Your task to perform on an android device: turn off notifications settings in the gmail app Image 0: 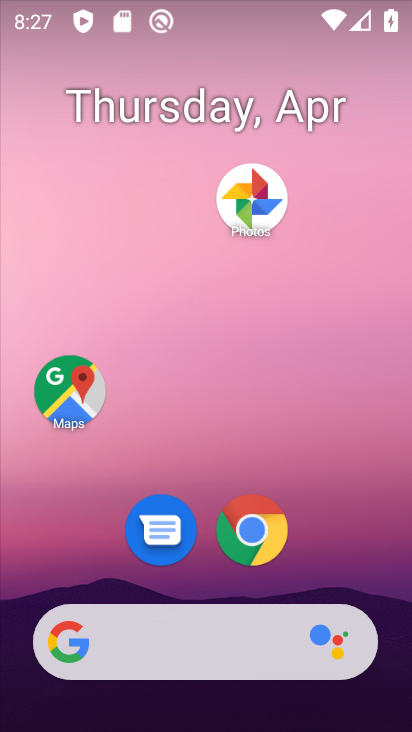
Step 0: drag from (363, 554) to (153, 50)
Your task to perform on an android device: turn off notifications settings in the gmail app Image 1: 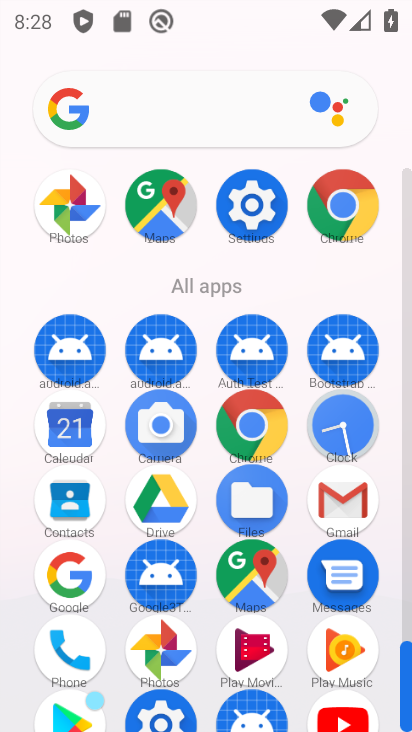
Step 1: click (343, 507)
Your task to perform on an android device: turn off notifications settings in the gmail app Image 2: 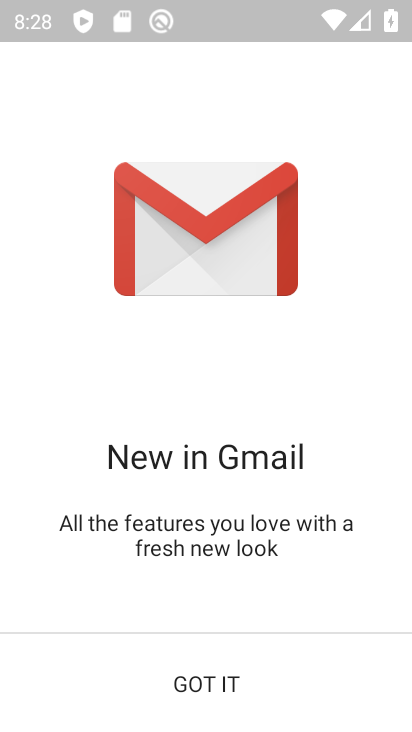
Step 2: click (241, 681)
Your task to perform on an android device: turn off notifications settings in the gmail app Image 3: 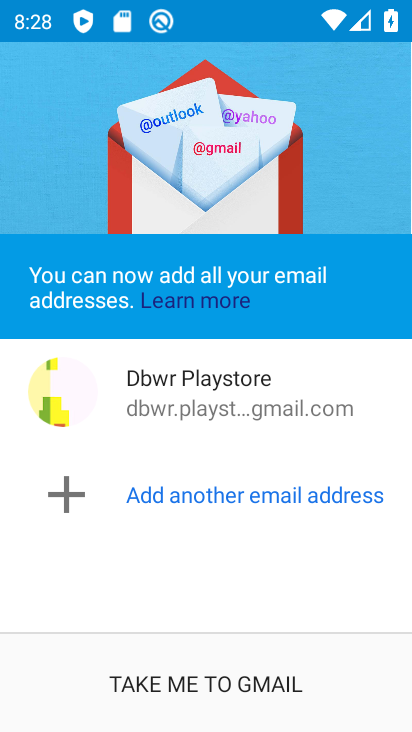
Step 3: click (219, 678)
Your task to perform on an android device: turn off notifications settings in the gmail app Image 4: 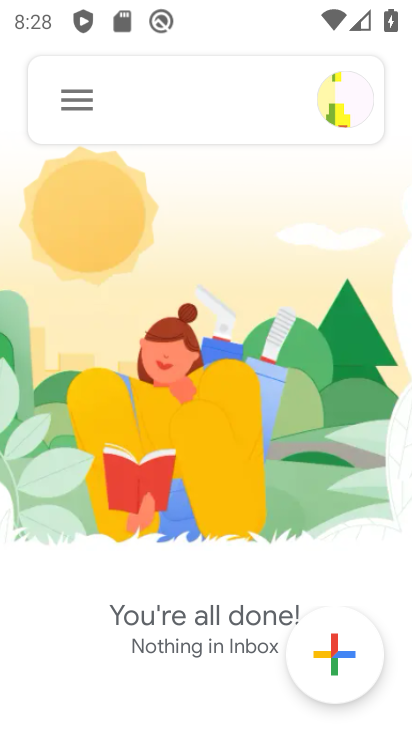
Step 4: click (77, 99)
Your task to perform on an android device: turn off notifications settings in the gmail app Image 5: 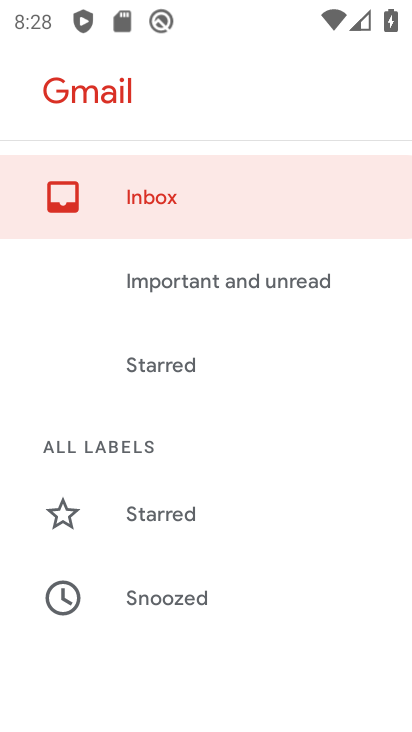
Step 5: drag from (182, 499) to (235, 98)
Your task to perform on an android device: turn off notifications settings in the gmail app Image 6: 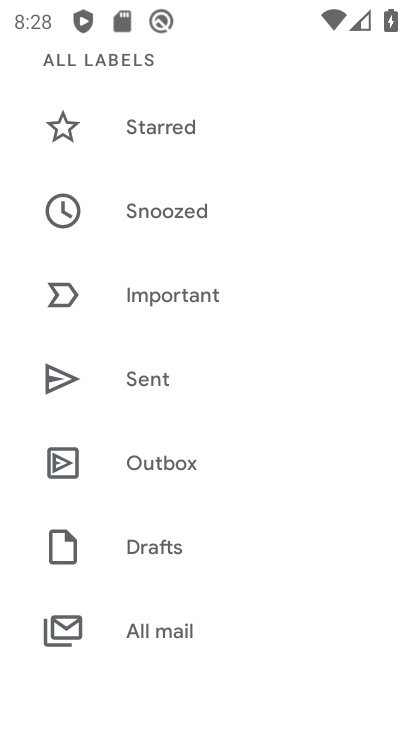
Step 6: drag from (217, 530) to (221, 172)
Your task to perform on an android device: turn off notifications settings in the gmail app Image 7: 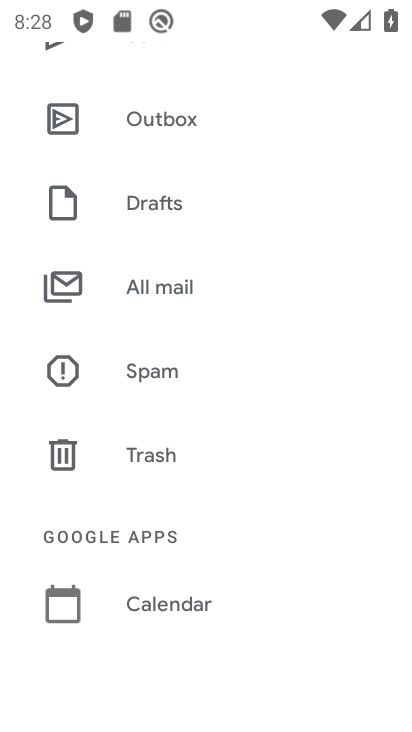
Step 7: drag from (154, 595) to (183, 184)
Your task to perform on an android device: turn off notifications settings in the gmail app Image 8: 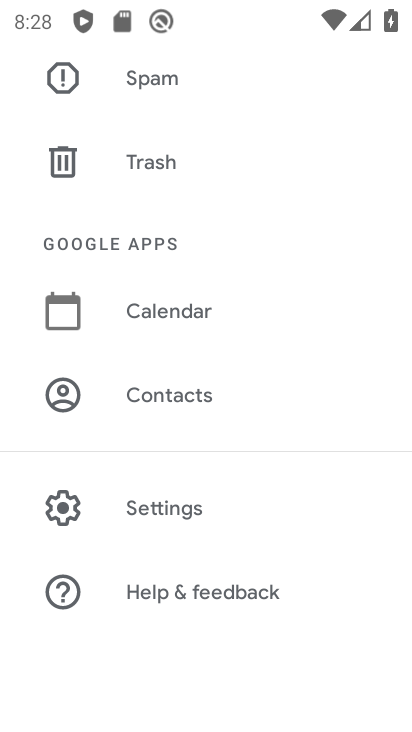
Step 8: click (170, 513)
Your task to perform on an android device: turn off notifications settings in the gmail app Image 9: 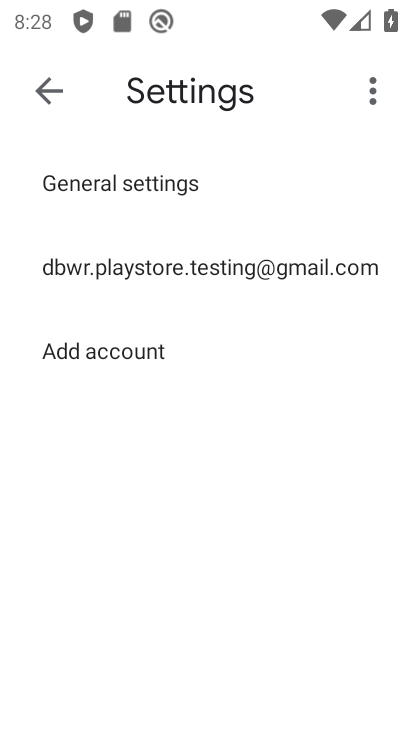
Step 9: click (309, 255)
Your task to perform on an android device: turn off notifications settings in the gmail app Image 10: 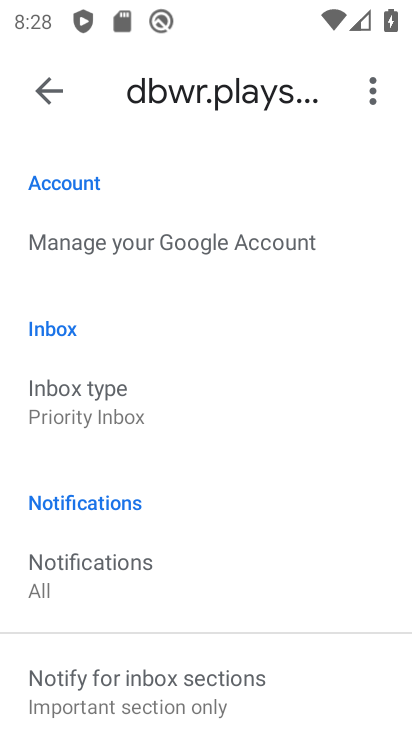
Step 10: drag from (160, 539) to (185, 253)
Your task to perform on an android device: turn off notifications settings in the gmail app Image 11: 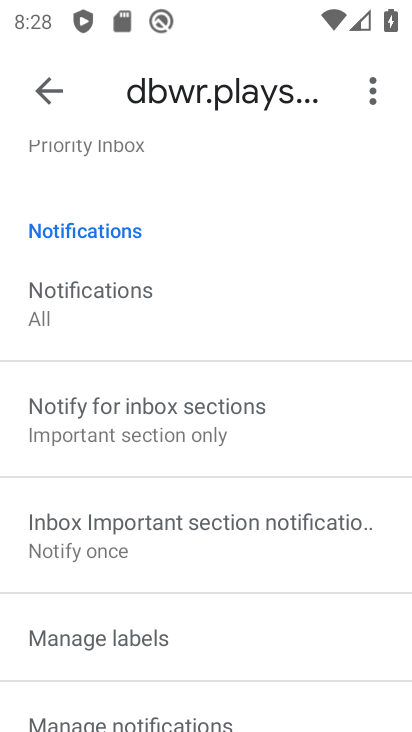
Step 11: click (165, 722)
Your task to perform on an android device: turn off notifications settings in the gmail app Image 12: 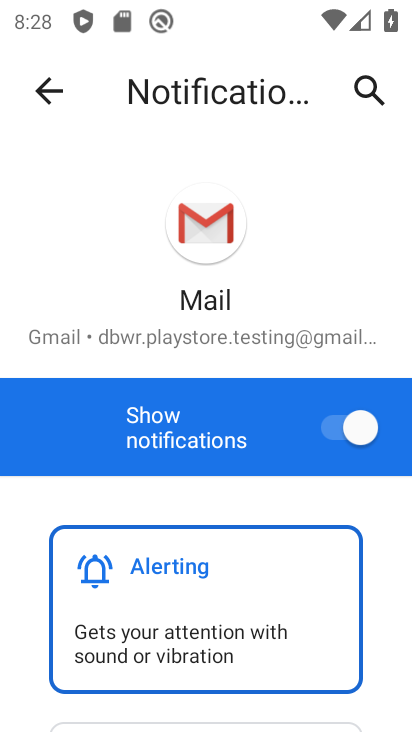
Step 12: click (355, 413)
Your task to perform on an android device: turn off notifications settings in the gmail app Image 13: 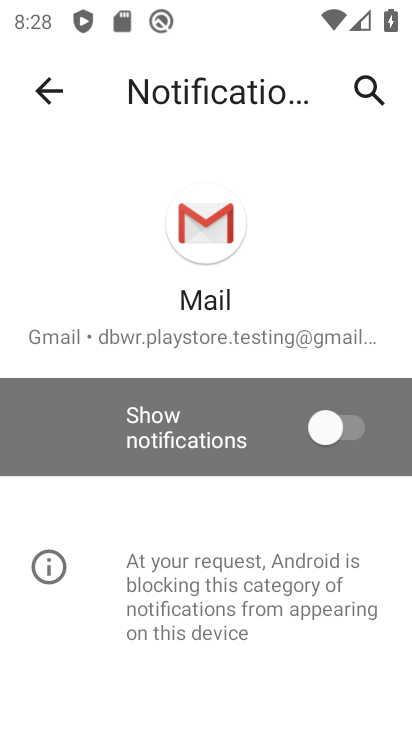
Step 13: task complete